Your task to perform on an android device: change text size in settings app Image 0: 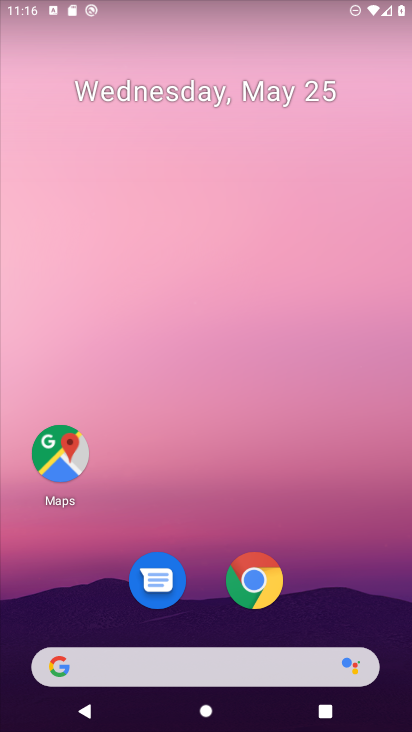
Step 0: press home button
Your task to perform on an android device: change text size in settings app Image 1: 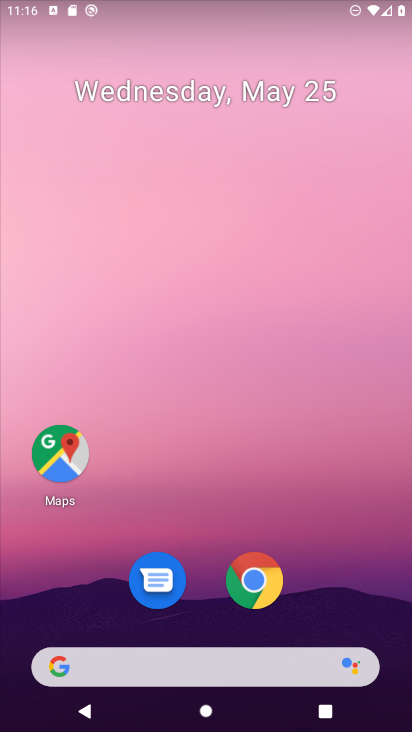
Step 1: drag from (81, 485) to (228, 190)
Your task to perform on an android device: change text size in settings app Image 2: 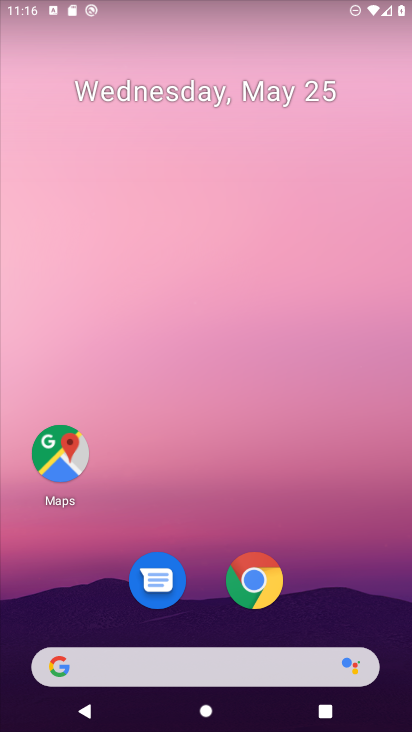
Step 2: drag from (30, 503) to (271, 67)
Your task to perform on an android device: change text size in settings app Image 3: 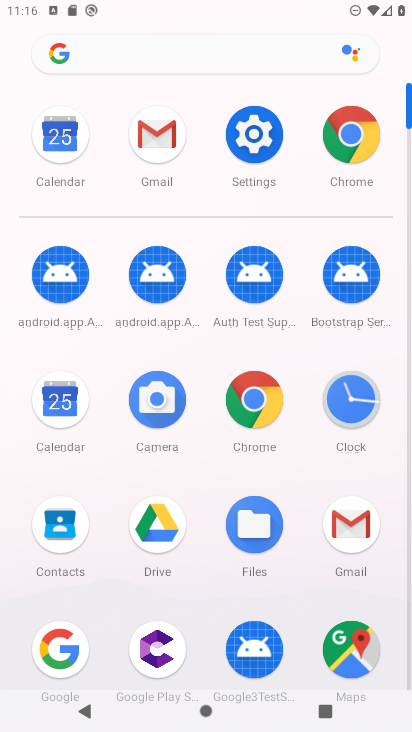
Step 3: click (237, 128)
Your task to perform on an android device: change text size in settings app Image 4: 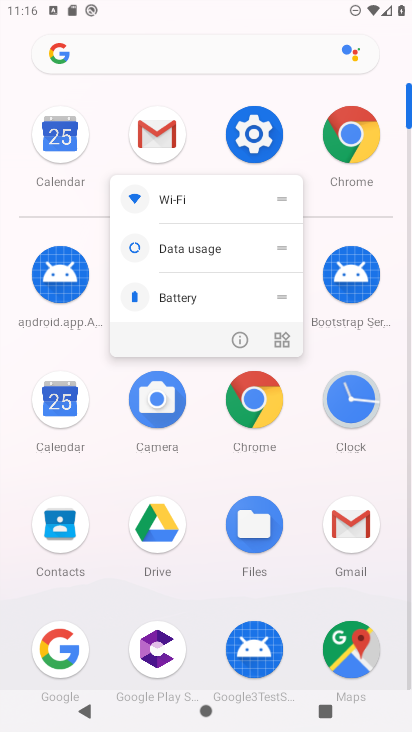
Step 4: click (226, 138)
Your task to perform on an android device: change text size in settings app Image 5: 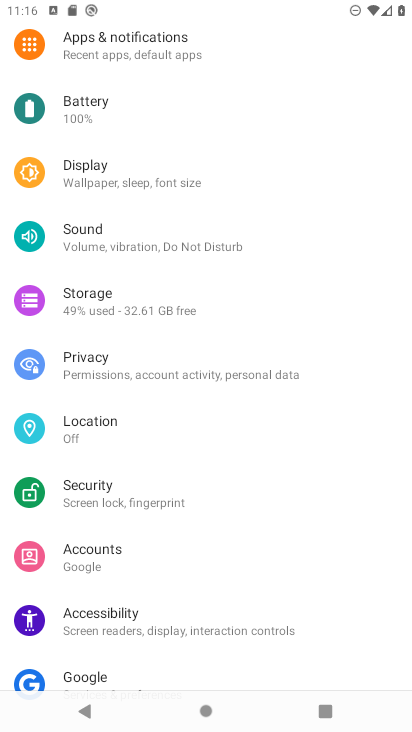
Step 5: click (100, 169)
Your task to perform on an android device: change text size in settings app Image 6: 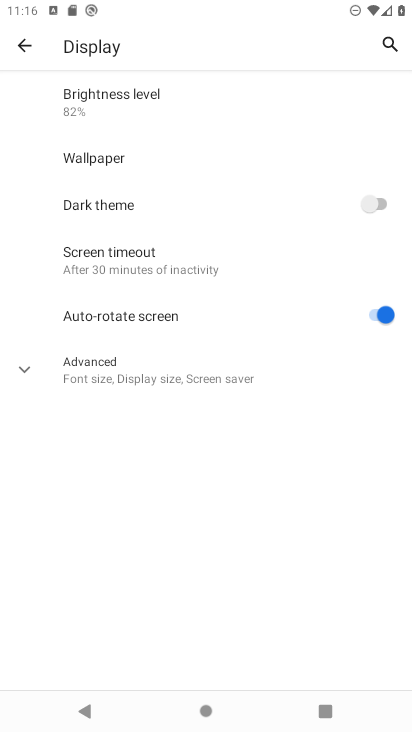
Step 6: click (146, 363)
Your task to perform on an android device: change text size in settings app Image 7: 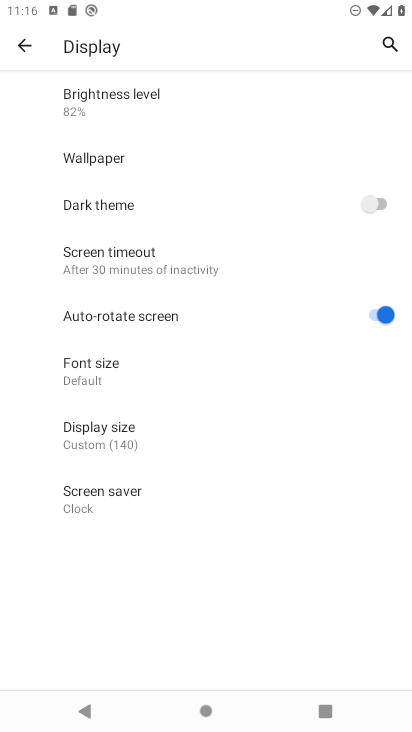
Step 7: click (100, 365)
Your task to perform on an android device: change text size in settings app Image 8: 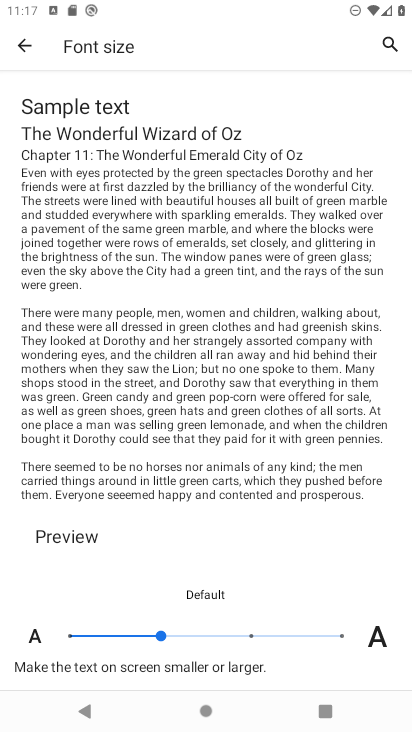
Step 8: click (245, 634)
Your task to perform on an android device: change text size in settings app Image 9: 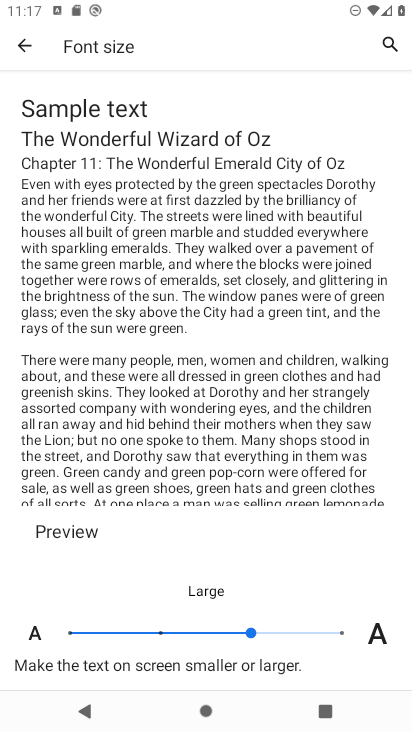
Step 9: task complete